Your task to perform on an android device: open app "Viber Messenger" (install if not already installed), go to login, and select forgot password Image 0: 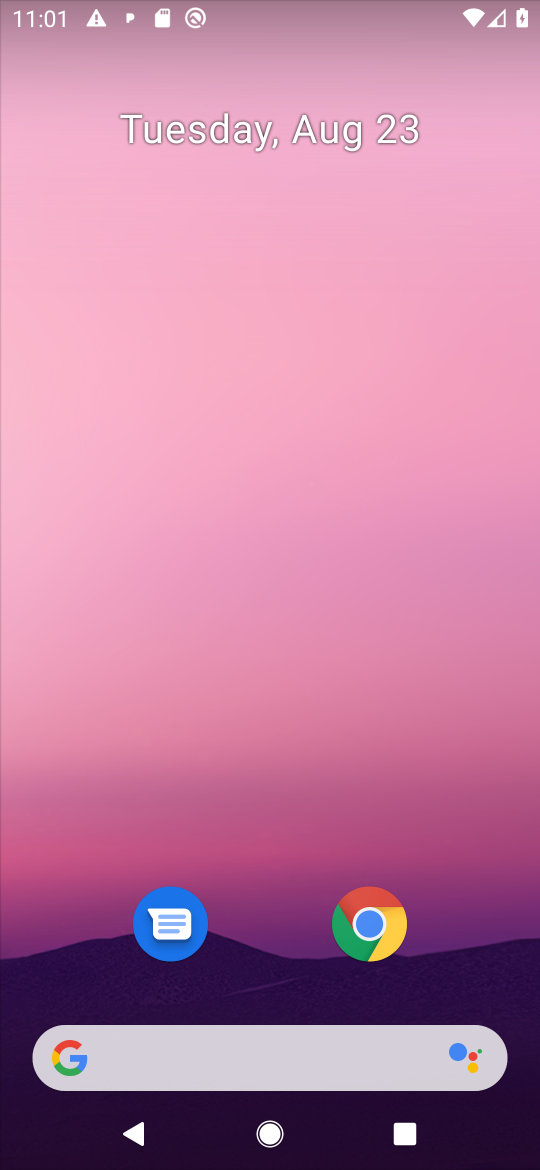
Step 0: press home button
Your task to perform on an android device: open app "Viber Messenger" (install if not already installed), go to login, and select forgot password Image 1: 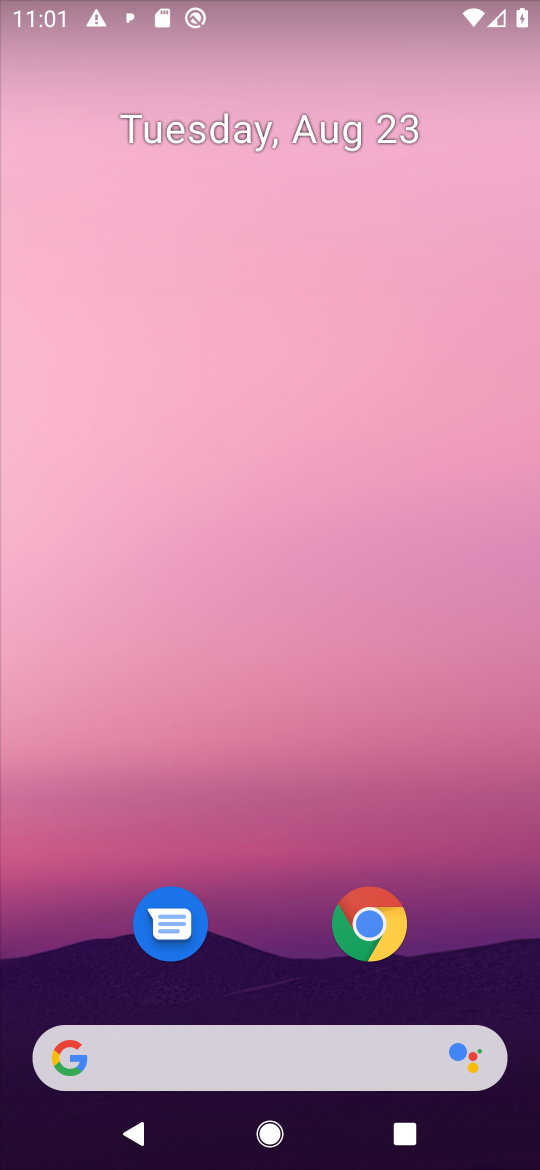
Step 1: drag from (468, 967) to (490, 108)
Your task to perform on an android device: open app "Viber Messenger" (install if not already installed), go to login, and select forgot password Image 2: 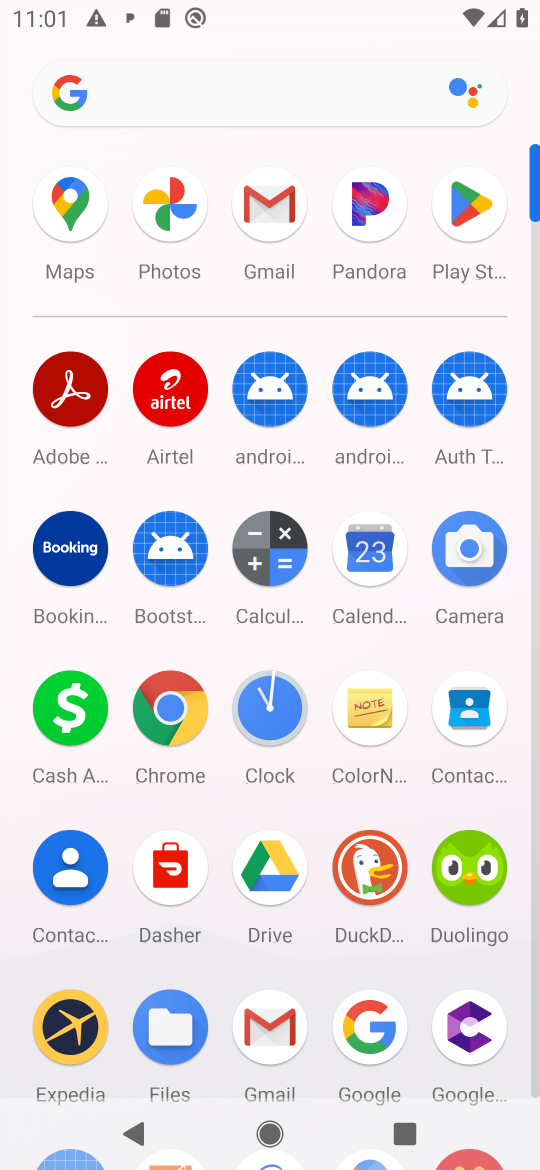
Step 2: click (473, 218)
Your task to perform on an android device: open app "Viber Messenger" (install if not already installed), go to login, and select forgot password Image 3: 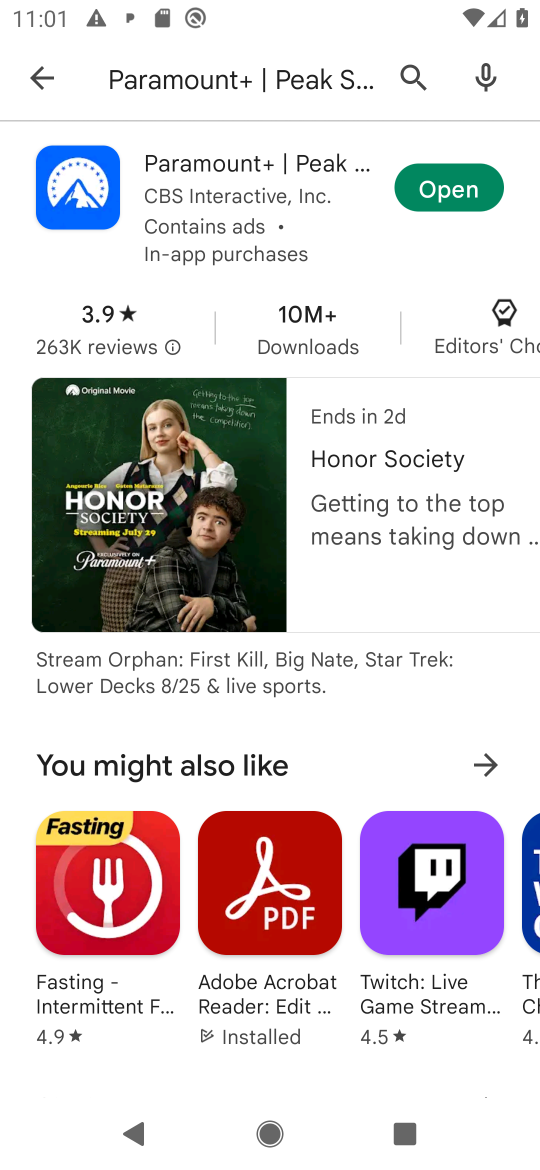
Step 3: press back button
Your task to perform on an android device: open app "Viber Messenger" (install if not already installed), go to login, and select forgot password Image 4: 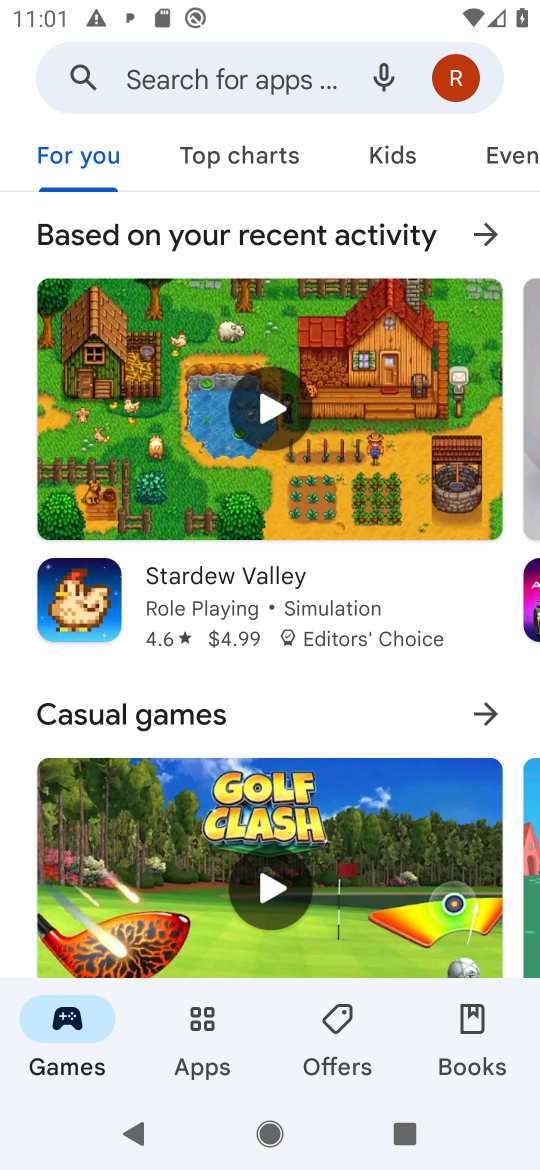
Step 4: click (175, 91)
Your task to perform on an android device: open app "Viber Messenger" (install if not already installed), go to login, and select forgot password Image 5: 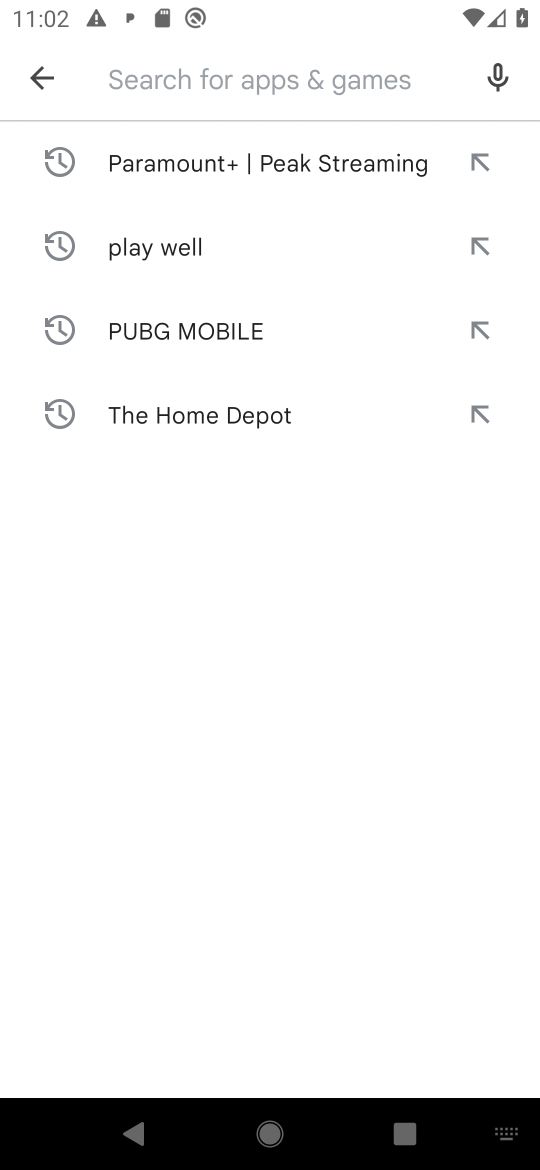
Step 5: type "Viber Messenger"
Your task to perform on an android device: open app "Viber Messenger" (install if not already installed), go to login, and select forgot password Image 6: 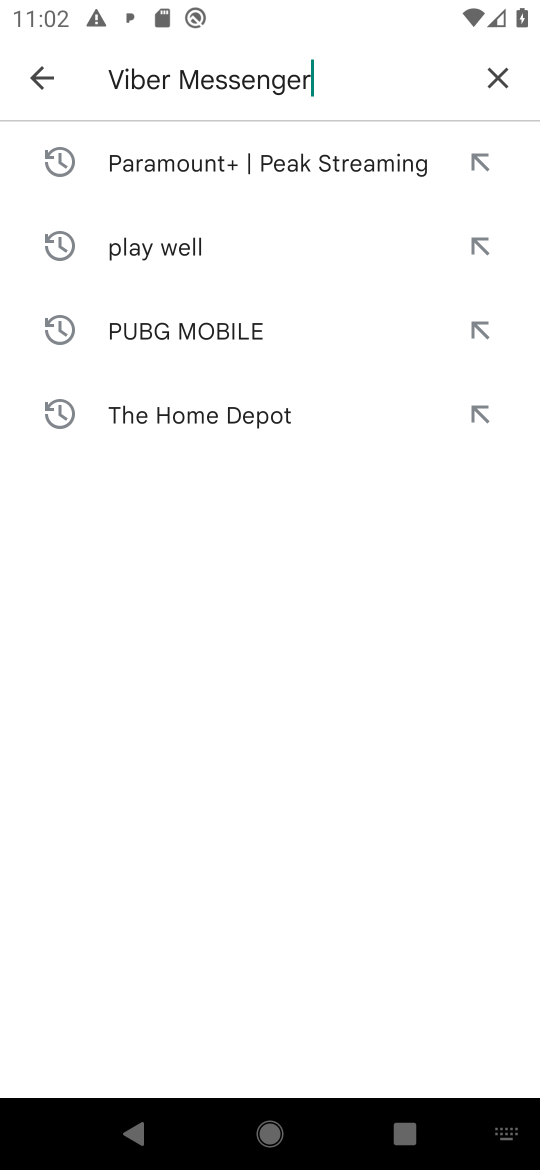
Step 6: press enter
Your task to perform on an android device: open app "Viber Messenger" (install if not already installed), go to login, and select forgot password Image 7: 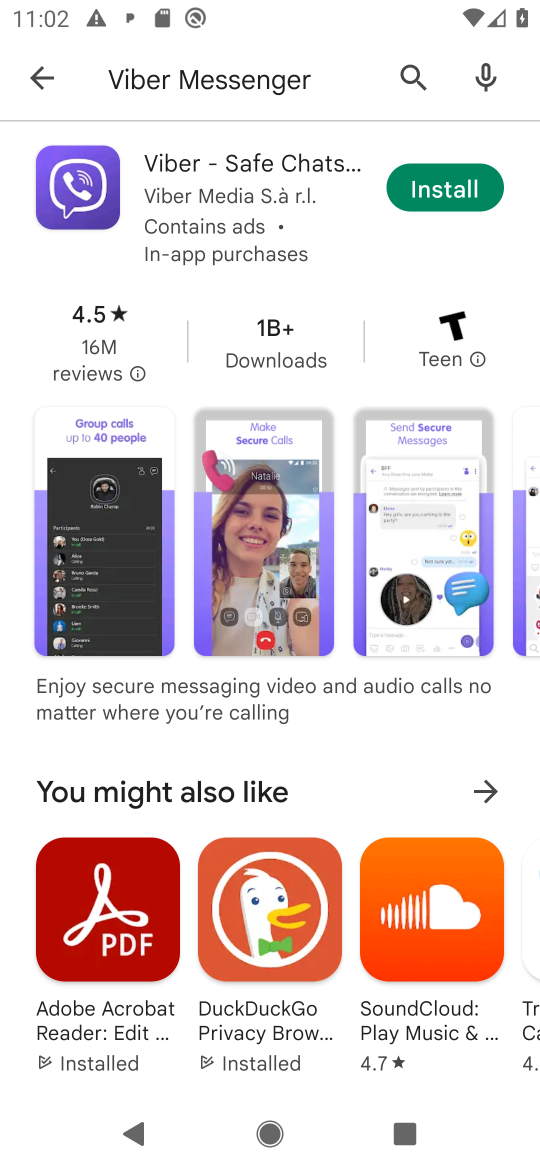
Step 7: click (456, 186)
Your task to perform on an android device: open app "Viber Messenger" (install if not already installed), go to login, and select forgot password Image 8: 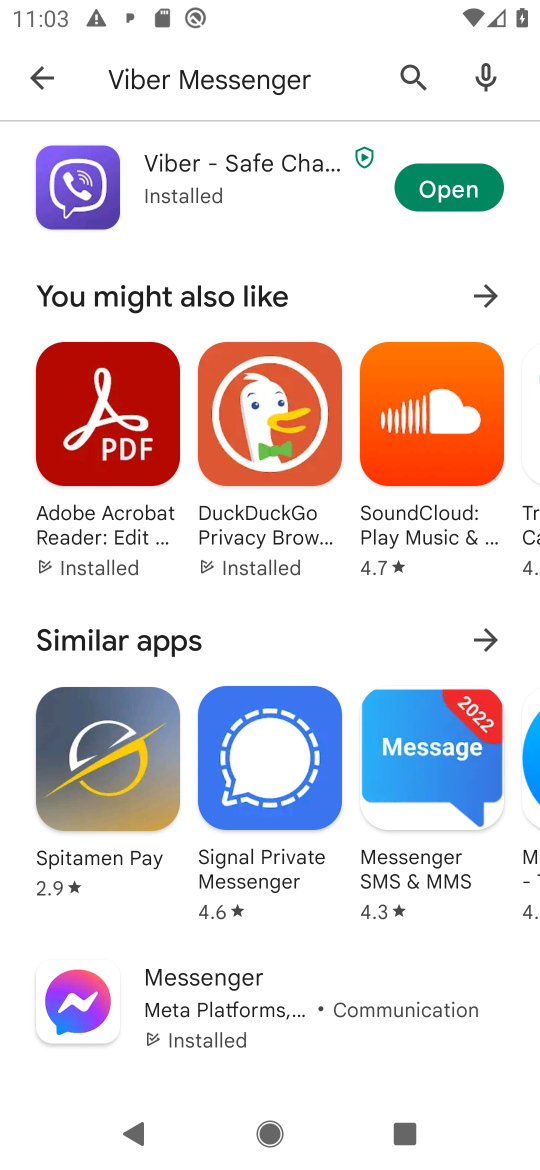
Step 8: click (449, 189)
Your task to perform on an android device: open app "Viber Messenger" (install if not already installed), go to login, and select forgot password Image 9: 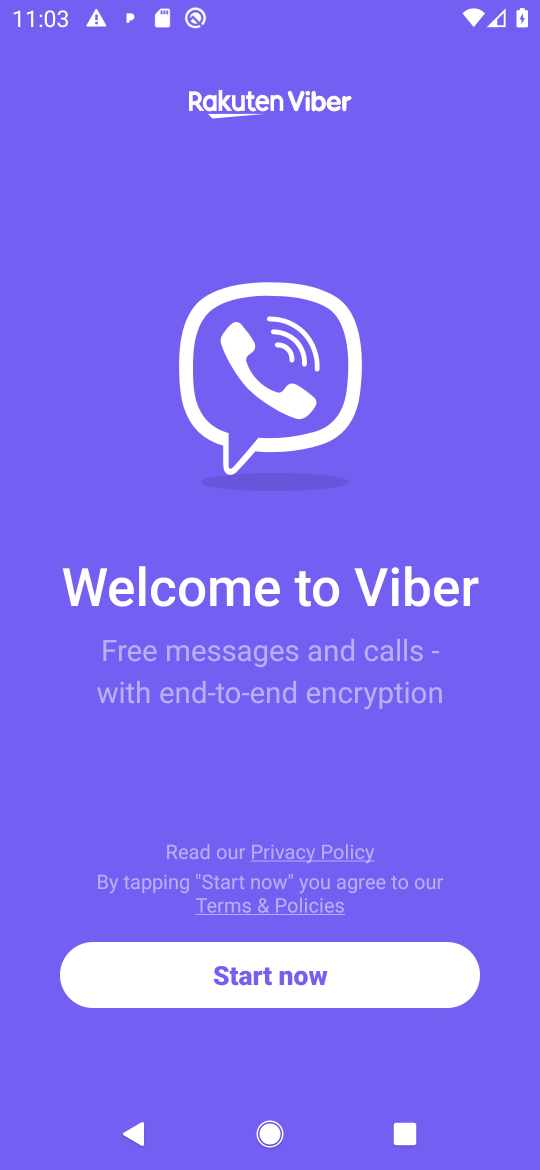
Step 9: click (281, 977)
Your task to perform on an android device: open app "Viber Messenger" (install if not already installed), go to login, and select forgot password Image 10: 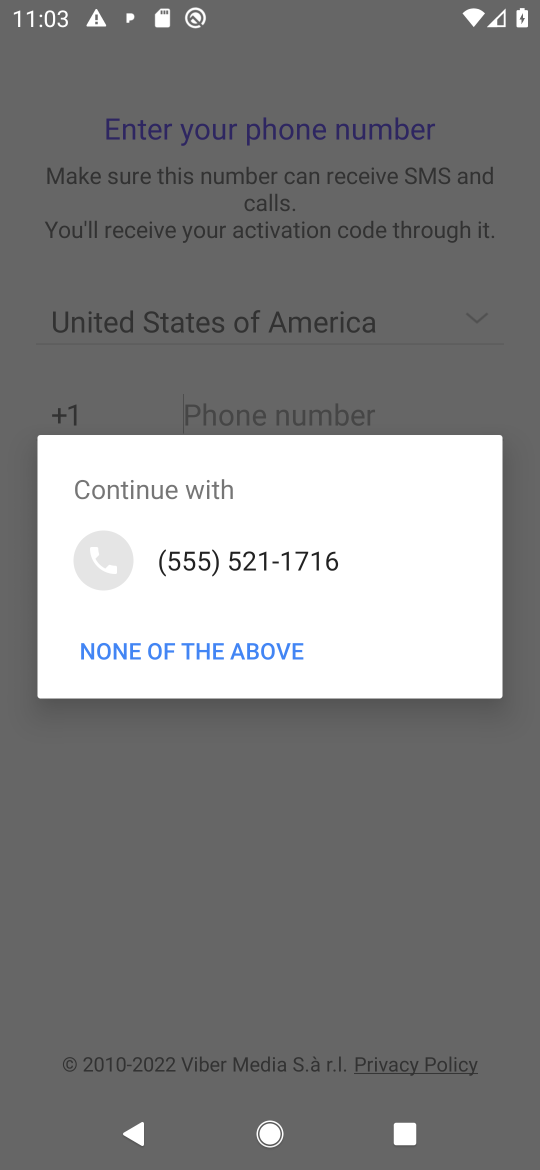
Step 10: click (229, 633)
Your task to perform on an android device: open app "Viber Messenger" (install if not already installed), go to login, and select forgot password Image 11: 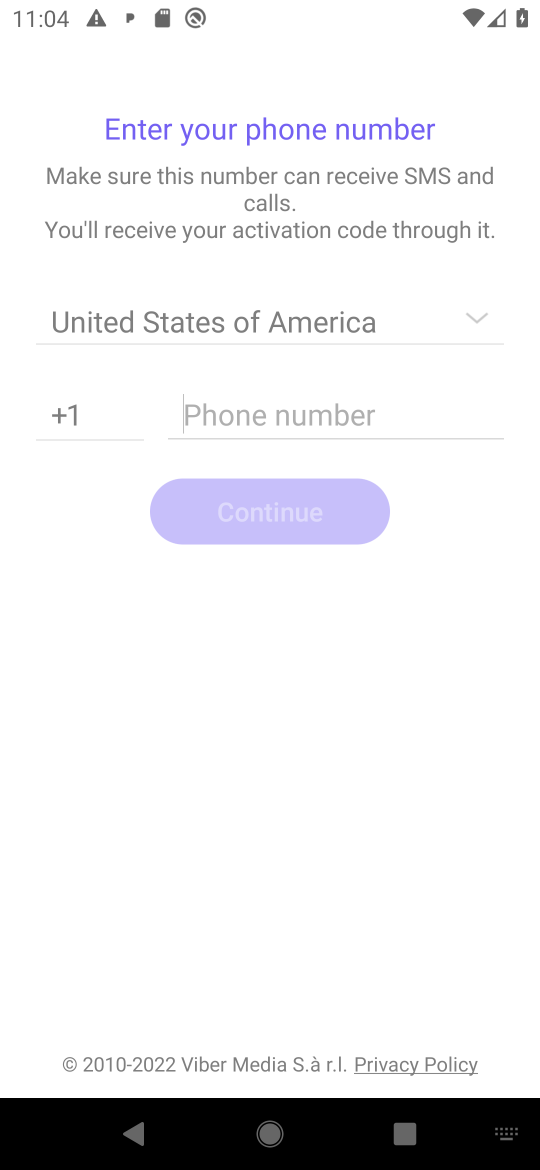
Step 11: task complete